Your task to perform on an android device: Open Chrome and go to settings Image 0: 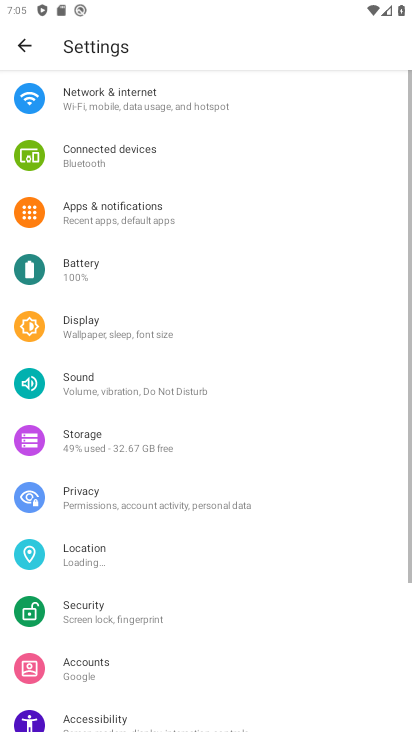
Step 0: press home button
Your task to perform on an android device: Open Chrome and go to settings Image 1: 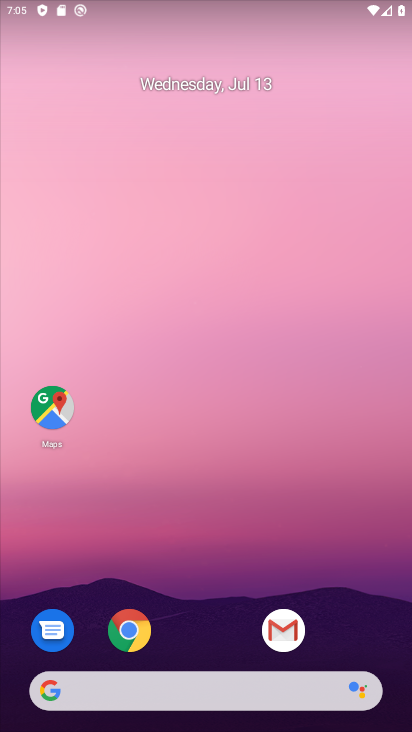
Step 1: click (148, 629)
Your task to perform on an android device: Open Chrome and go to settings Image 2: 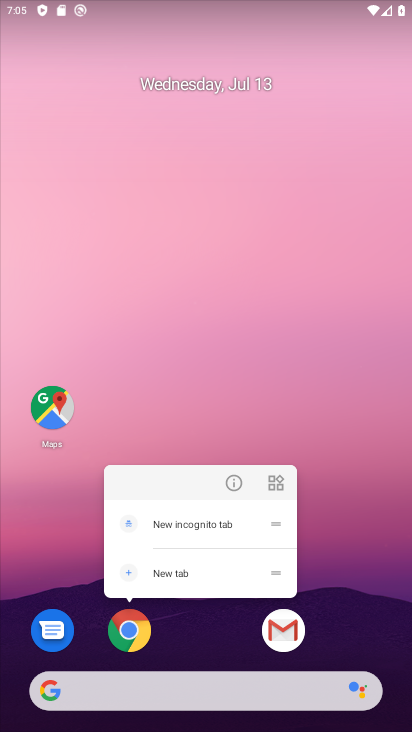
Step 2: click (125, 635)
Your task to perform on an android device: Open Chrome and go to settings Image 3: 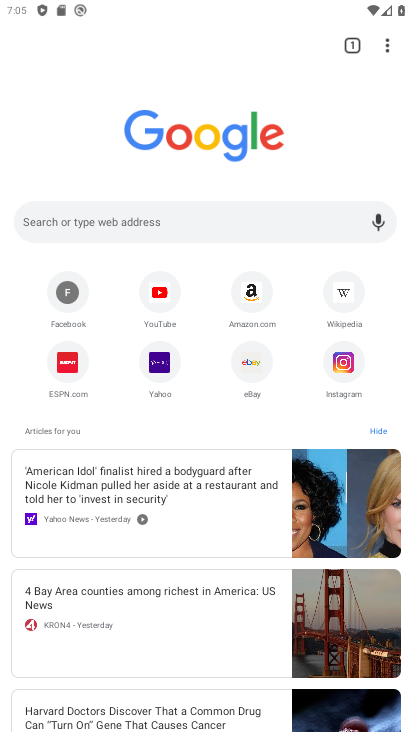
Step 3: click (389, 48)
Your task to perform on an android device: Open Chrome and go to settings Image 4: 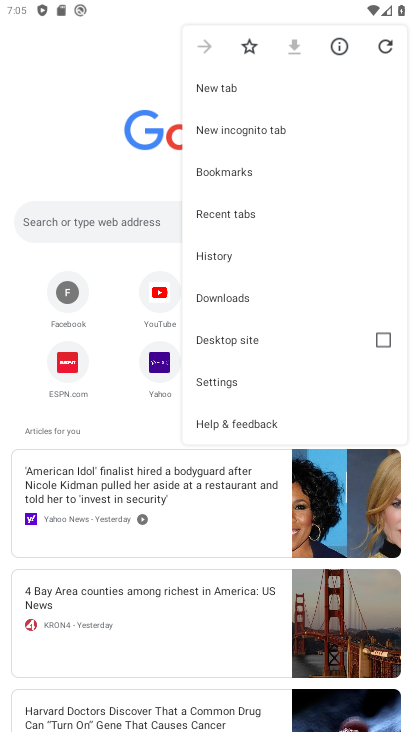
Step 4: click (216, 384)
Your task to perform on an android device: Open Chrome and go to settings Image 5: 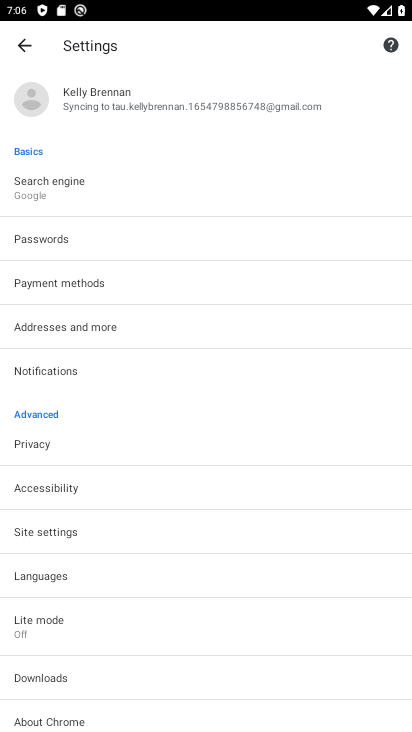
Step 5: task complete